Your task to perform on an android device: delete location history Image 0: 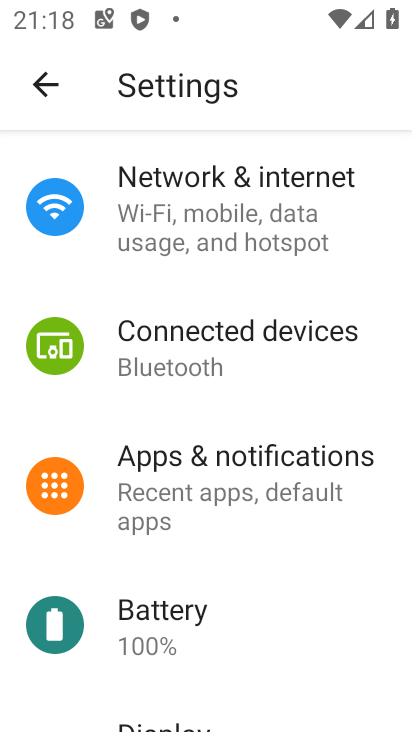
Step 0: press home button
Your task to perform on an android device: delete location history Image 1: 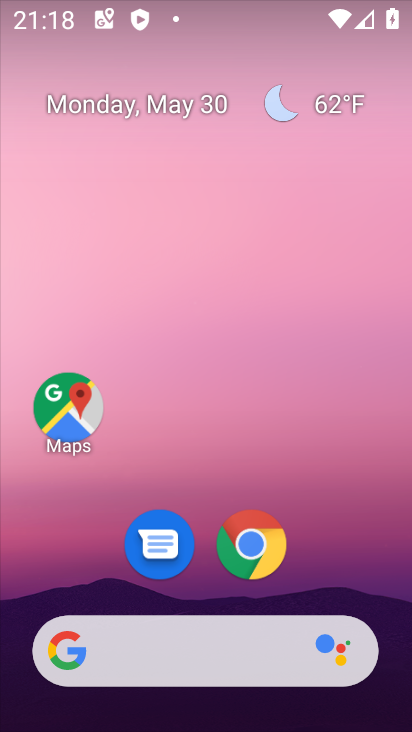
Step 1: drag from (334, 554) to (291, 224)
Your task to perform on an android device: delete location history Image 2: 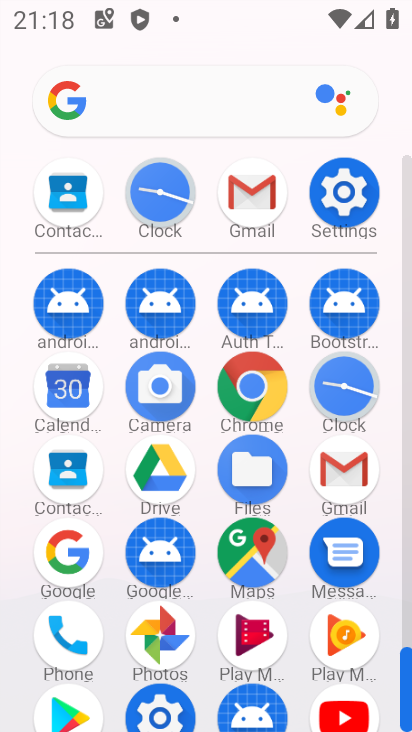
Step 2: drag from (210, 604) to (192, 379)
Your task to perform on an android device: delete location history Image 3: 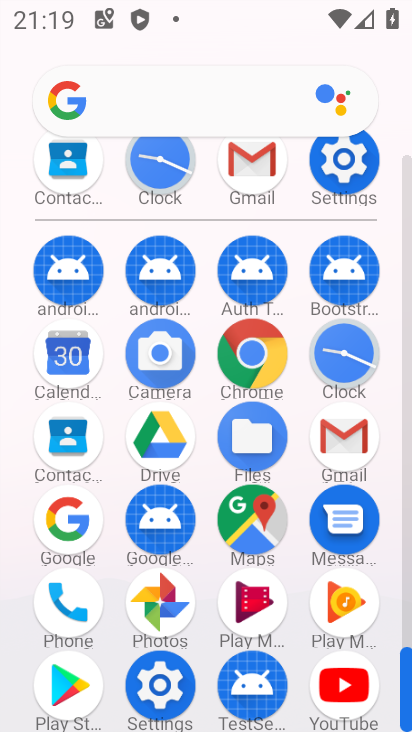
Step 3: click (252, 520)
Your task to perform on an android device: delete location history Image 4: 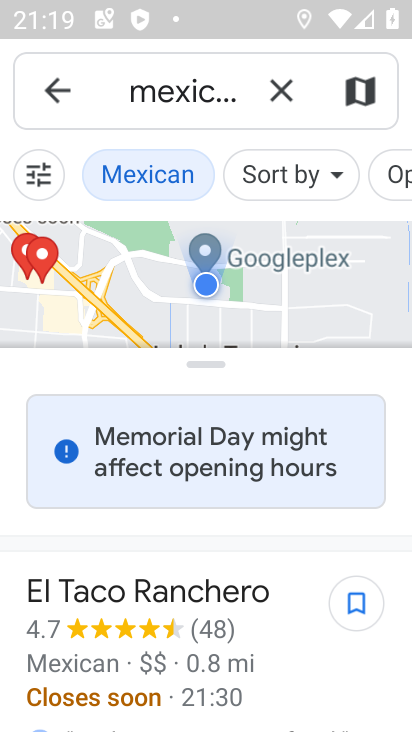
Step 4: click (277, 85)
Your task to perform on an android device: delete location history Image 5: 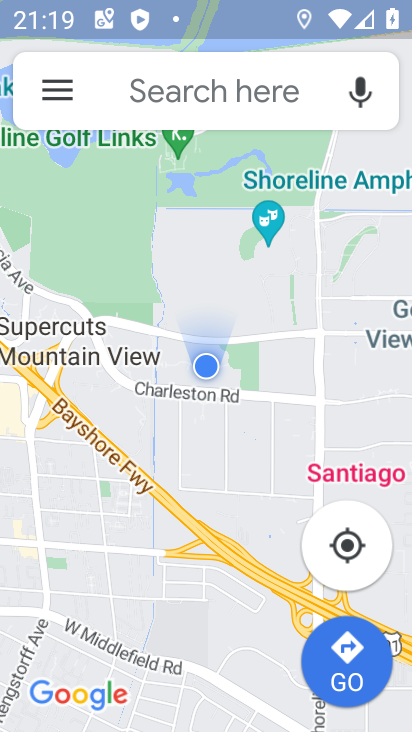
Step 5: click (59, 85)
Your task to perform on an android device: delete location history Image 6: 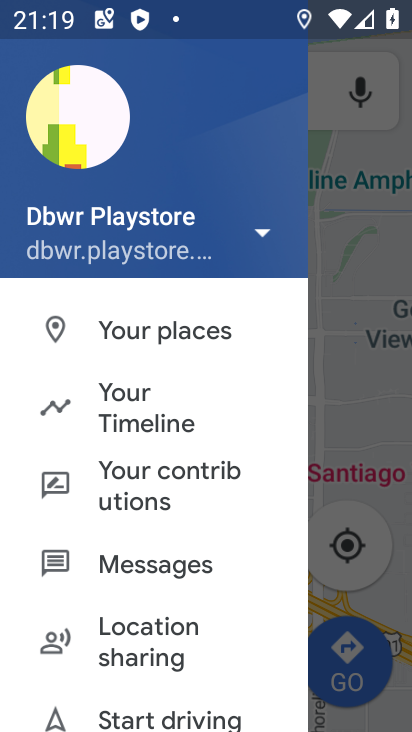
Step 6: drag from (171, 520) to (185, 424)
Your task to perform on an android device: delete location history Image 7: 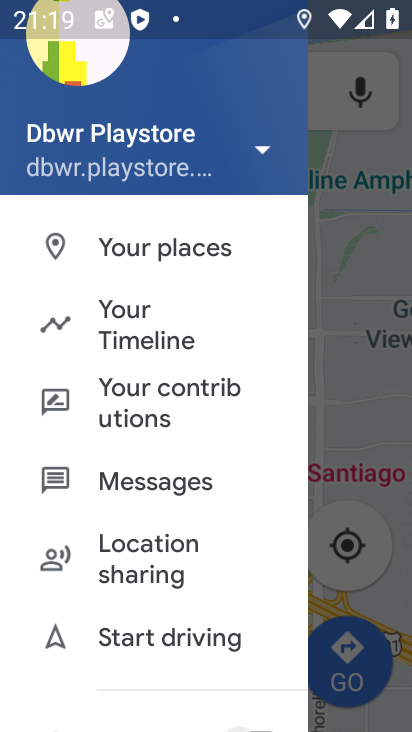
Step 7: drag from (139, 520) to (154, 421)
Your task to perform on an android device: delete location history Image 8: 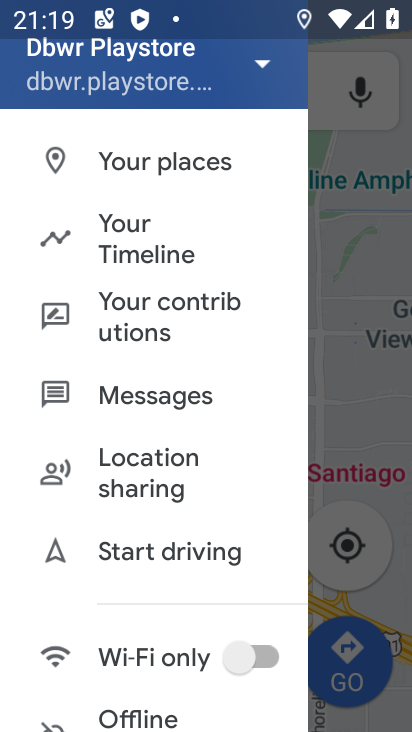
Step 8: drag from (129, 513) to (158, 370)
Your task to perform on an android device: delete location history Image 9: 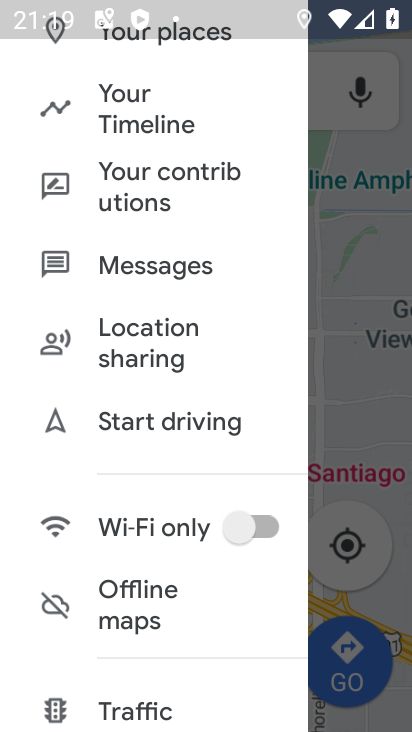
Step 9: drag from (145, 561) to (171, 480)
Your task to perform on an android device: delete location history Image 10: 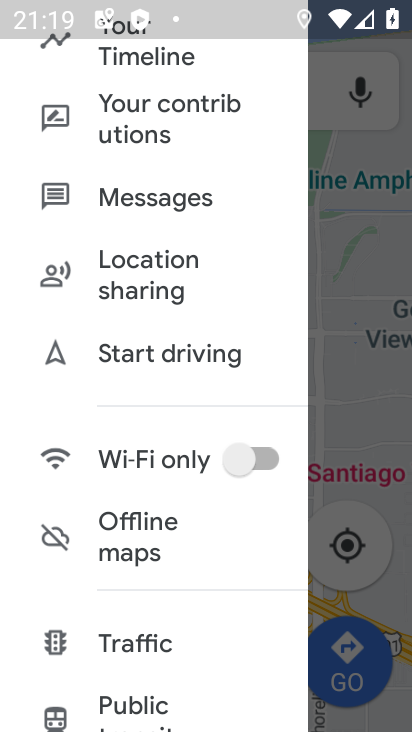
Step 10: drag from (127, 614) to (155, 527)
Your task to perform on an android device: delete location history Image 11: 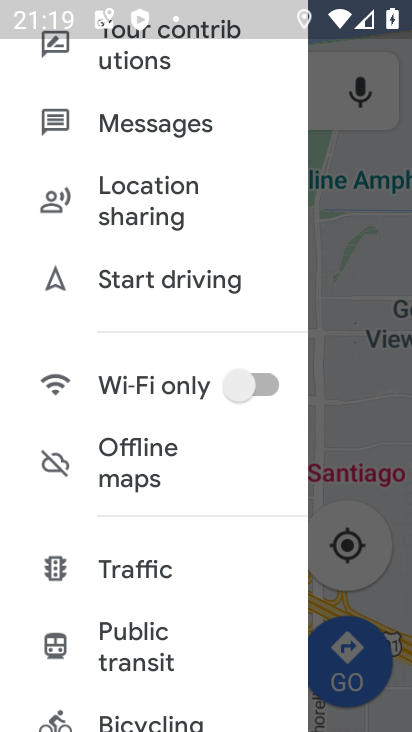
Step 11: drag from (145, 606) to (149, 516)
Your task to perform on an android device: delete location history Image 12: 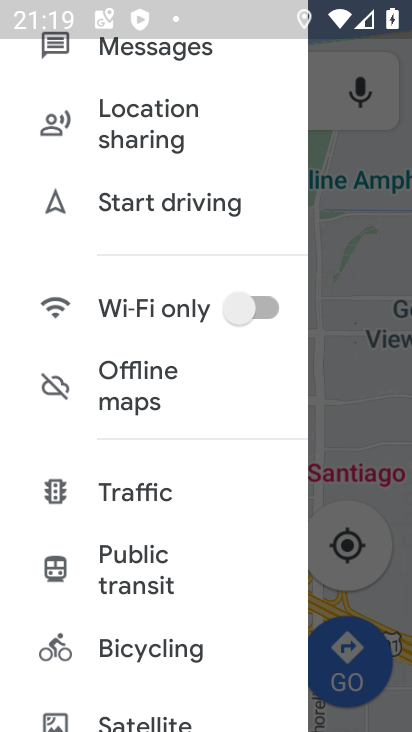
Step 12: drag from (129, 613) to (153, 507)
Your task to perform on an android device: delete location history Image 13: 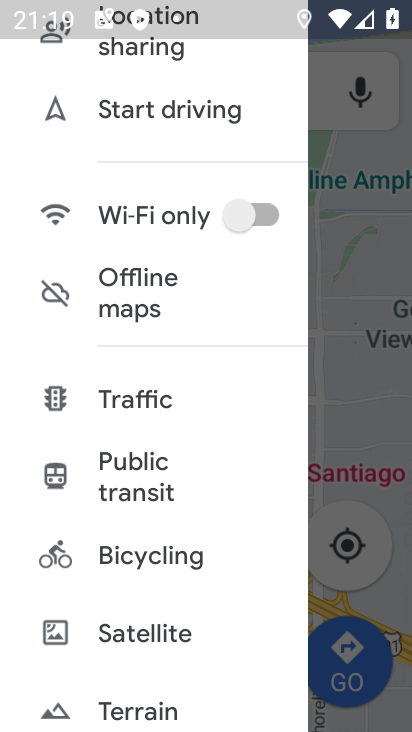
Step 13: drag from (119, 589) to (104, 460)
Your task to perform on an android device: delete location history Image 14: 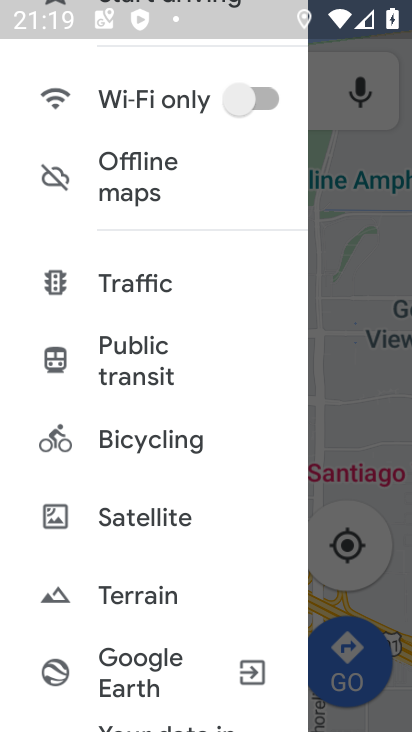
Step 14: drag from (128, 560) to (127, 467)
Your task to perform on an android device: delete location history Image 15: 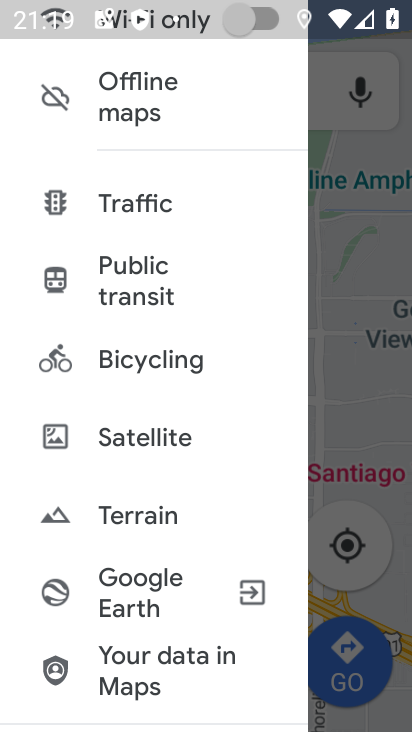
Step 15: drag from (140, 566) to (160, 453)
Your task to perform on an android device: delete location history Image 16: 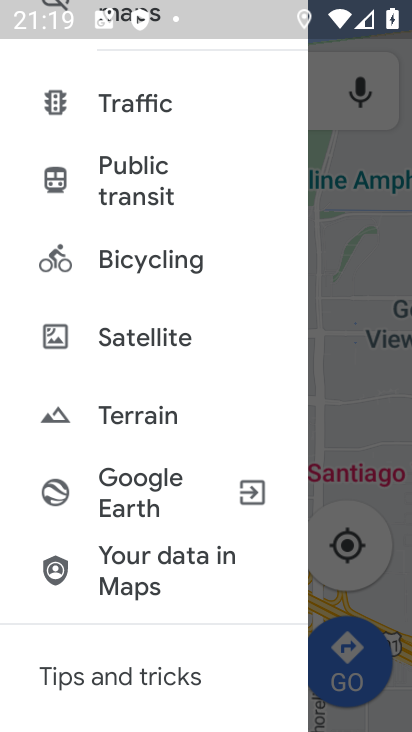
Step 16: drag from (123, 633) to (146, 520)
Your task to perform on an android device: delete location history Image 17: 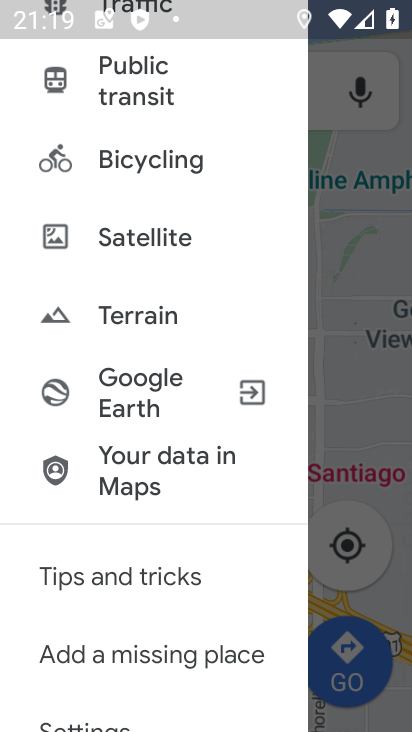
Step 17: drag from (131, 623) to (143, 493)
Your task to perform on an android device: delete location history Image 18: 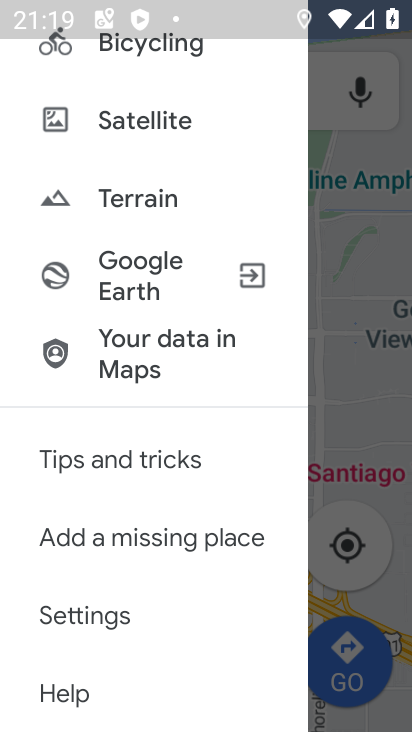
Step 18: click (110, 620)
Your task to perform on an android device: delete location history Image 19: 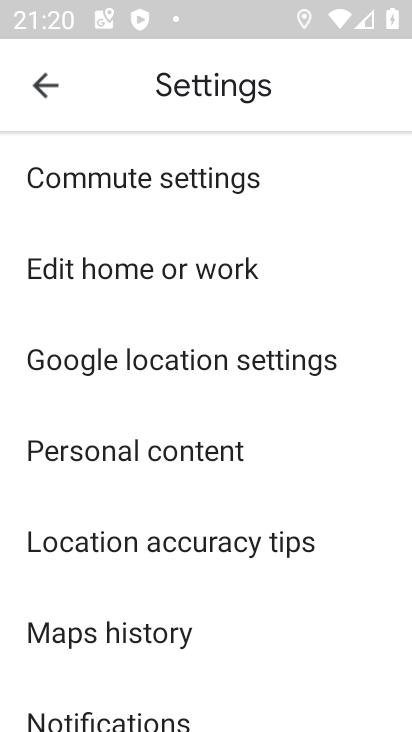
Step 19: click (157, 458)
Your task to perform on an android device: delete location history Image 20: 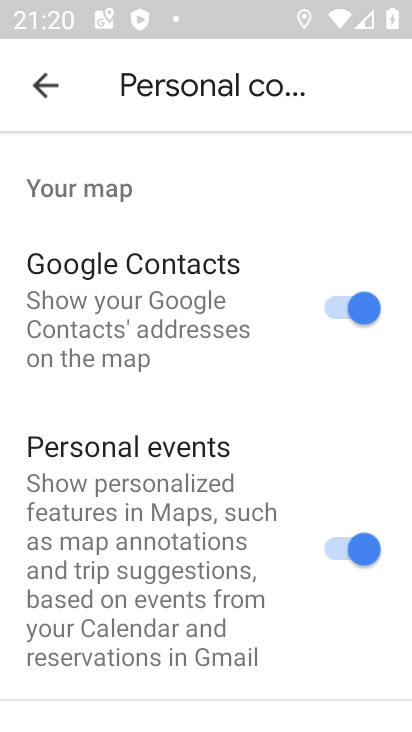
Step 20: drag from (158, 406) to (221, 237)
Your task to perform on an android device: delete location history Image 21: 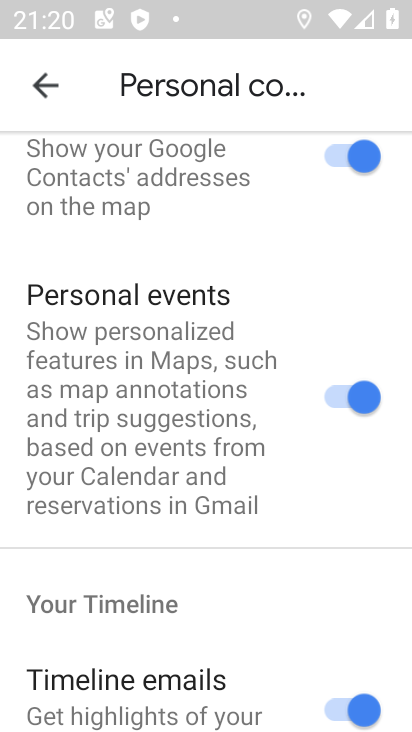
Step 21: drag from (130, 576) to (160, 466)
Your task to perform on an android device: delete location history Image 22: 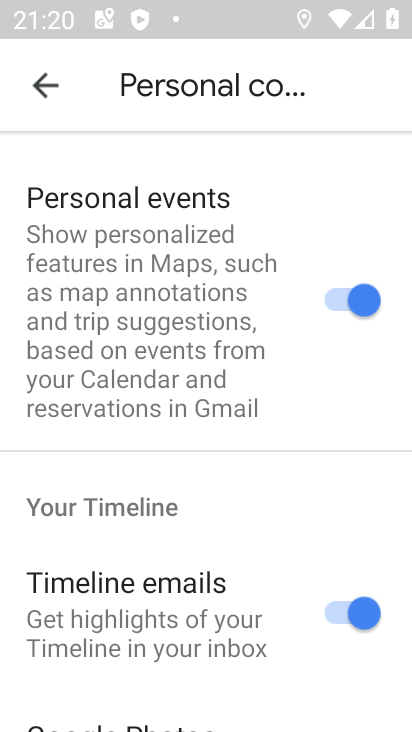
Step 22: drag from (126, 555) to (164, 449)
Your task to perform on an android device: delete location history Image 23: 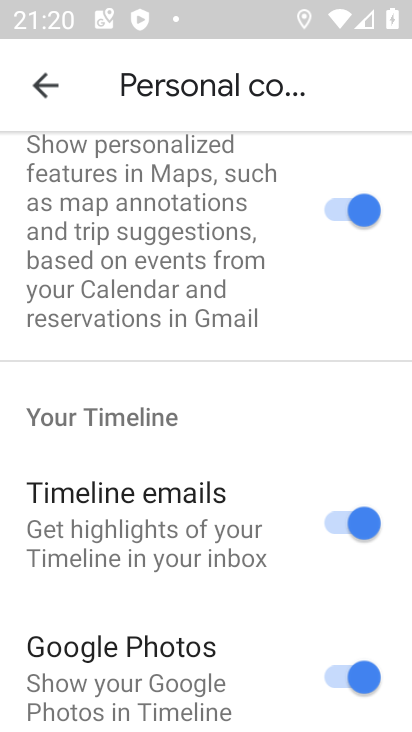
Step 23: drag from (124, 611) to (142, 451)
Your task to perform on an android device: delete location history Image 24: 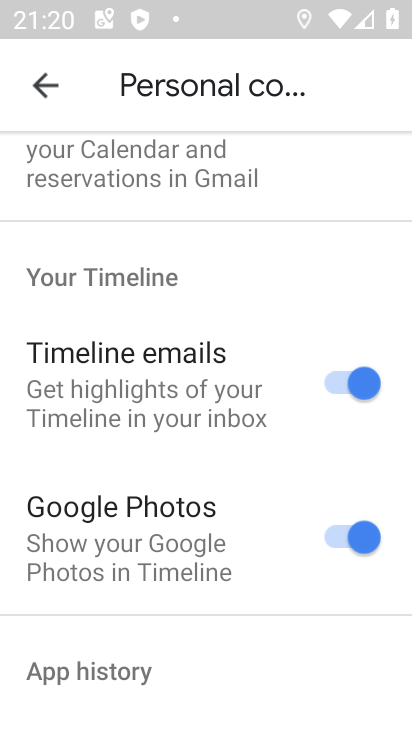
Step 24: drag from (95, 648) to (152, 517)
Your task to perform on an android device: delete location history Image 25: 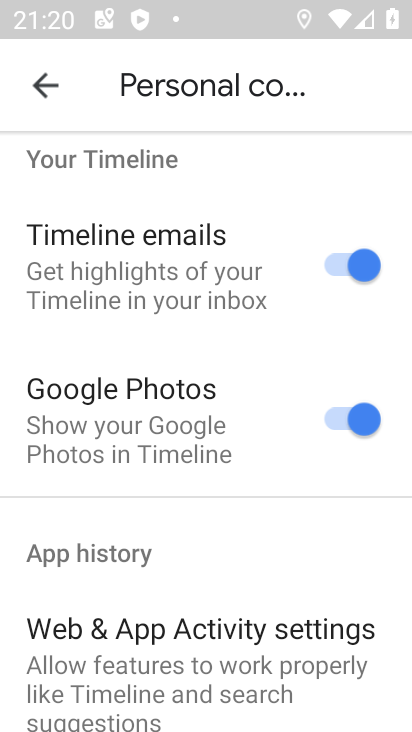
Step 25: drag from (118, 598) to (183, 438)
Your task to perform on an android device: delete location history Image 26: 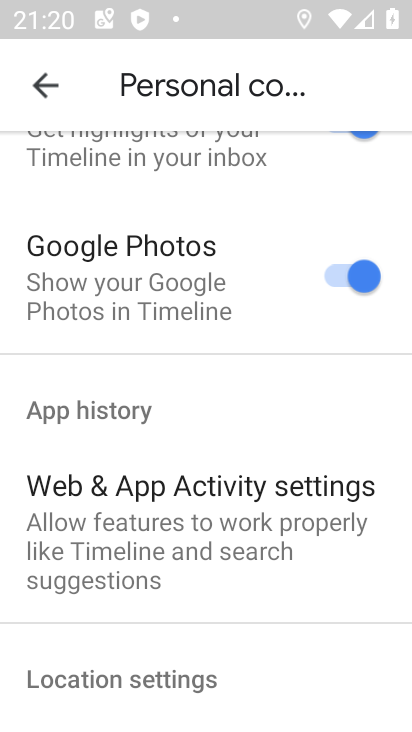
Step 26: drag from (100, 639) to (139, 466)
Your task to perform on an android device: delete location history Image 27: 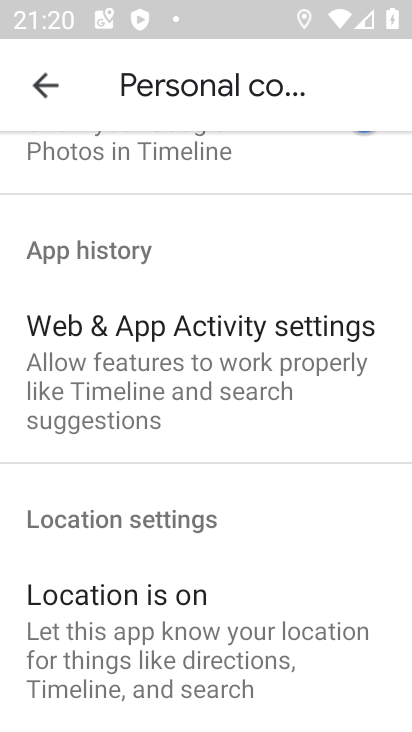
Step 27: drag from (116, 561) to (120, 369)
Your task to perform on an android device: delete location history Image 28: 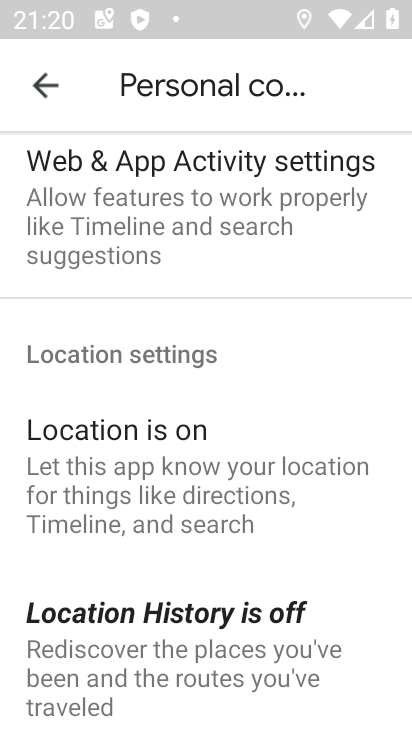
Step 28: drag from (84, 575) to (126, 375)
Your task to perform on an android device: delete location history Image 29: 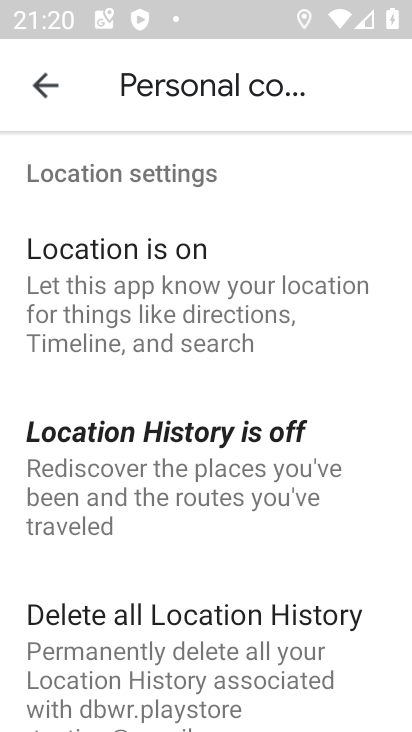
Step 29: drag from (93, 562) to (175, 245)
Your task to perform on an android device: delete location history Image 30: 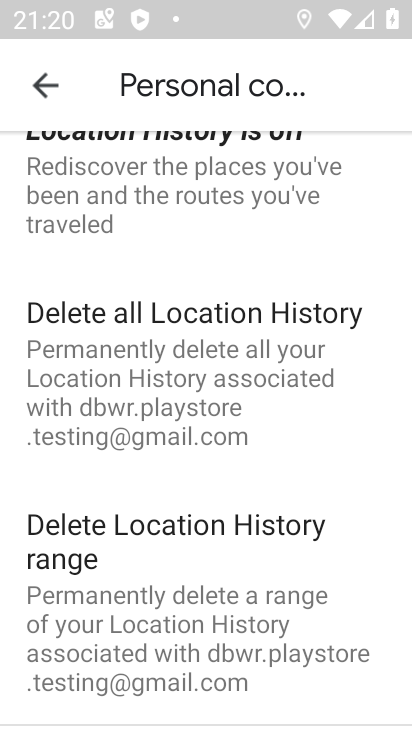
Step 30: click (332, 314)
Your task to perform on an android device: delete location history Image 31: 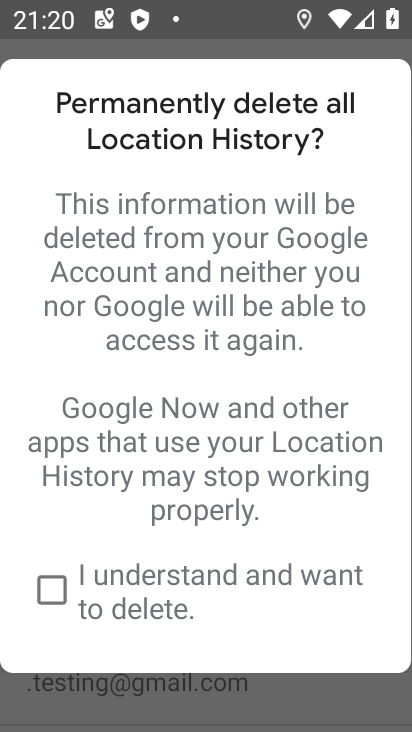
Step 31: click (43, 589)
Your task to perform on an android device: delete location history Image 32: 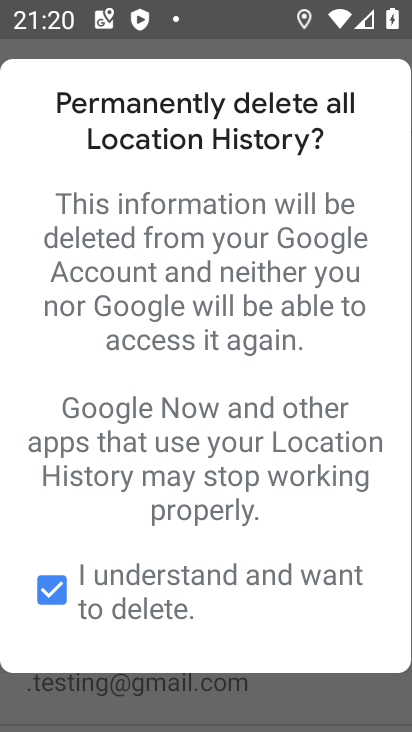
Step 32: click (317, 649)
Your task to perform on an android device: delete location history Image 33: 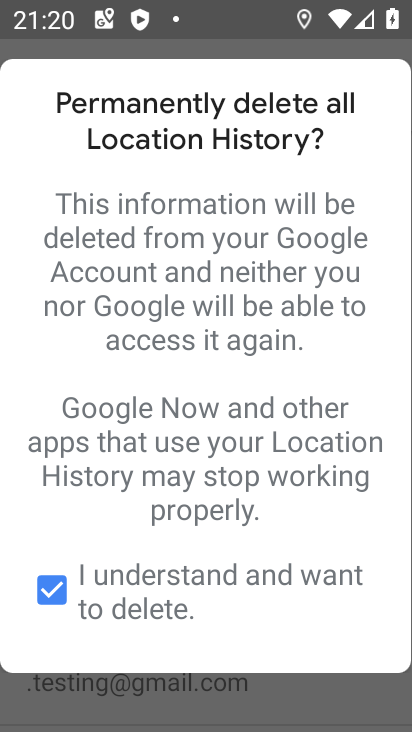
Step 33: click (308, 663)
Your task to perform on an android device: delete location history Image 34: 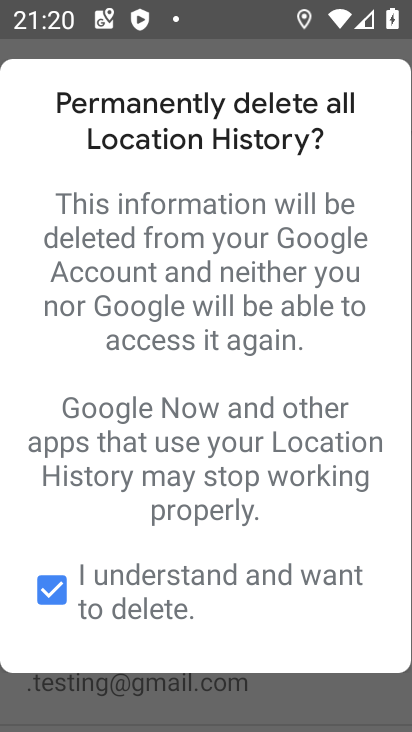
Step 34: click (315, 638)
Your task to perform on an android device: delete location history Image 35: 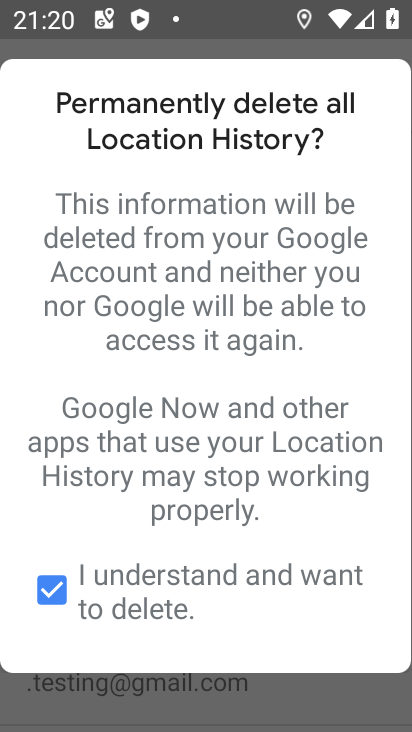
Step 35: click (304, 621)
Your task to perform on an android device: delete location history Image 36: 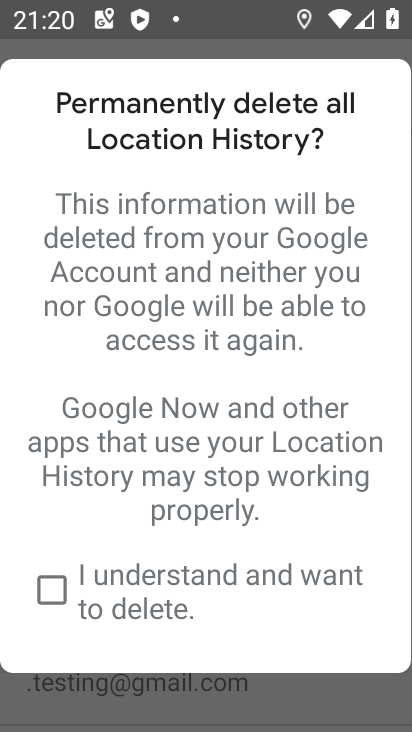
Step 36: click (283, 653)
Your task to perform on an android device: delete location history Image 37: 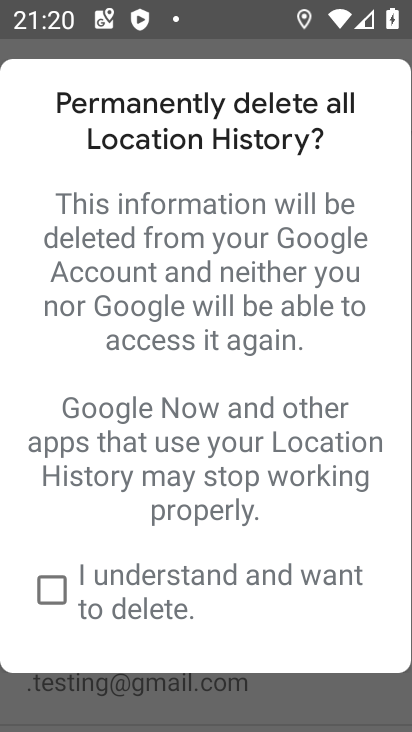
Step 37: click (257, 659)
Your task to perform on an android device: delete location history Image 38: 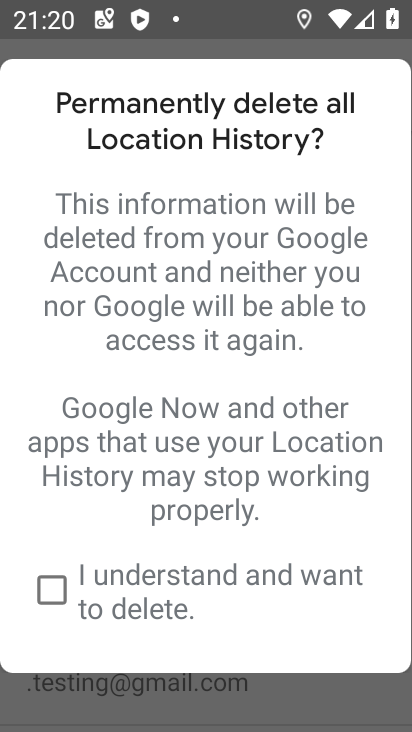
Step 38: click (357, 658)
Your task to perform on an android device: delete location history Image 39: 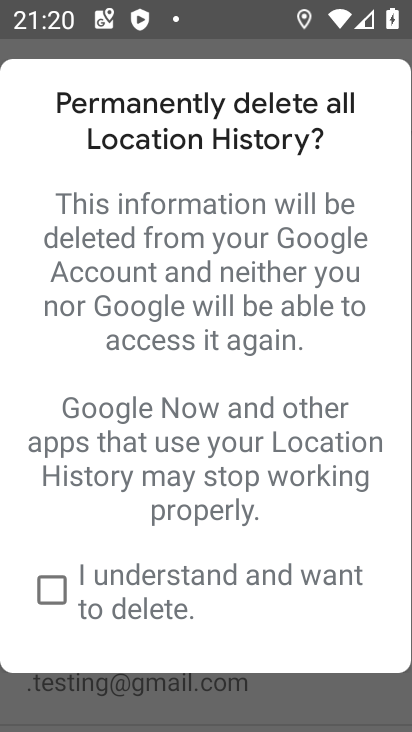
Step 39: click (343, 643)
Your task to perform on an android device: delete location history Image 40: 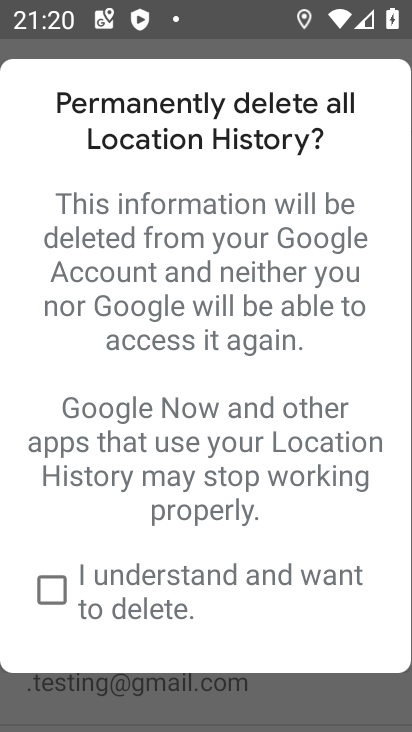
Step 40: click (325, 661)
Your task to perform on an android device: delete location history Image 41: 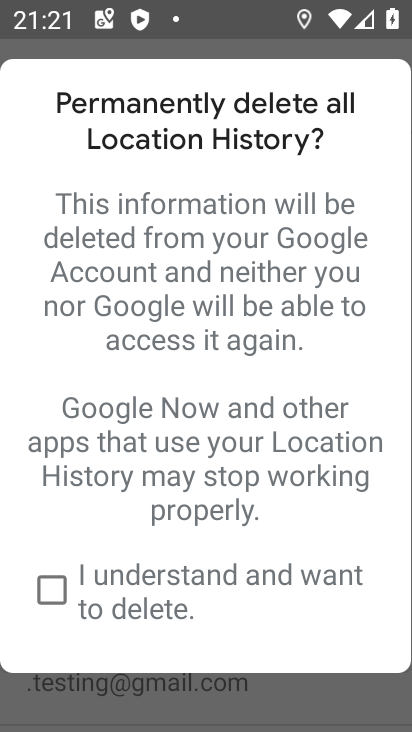
Step 41: click (47, 588)
Your task to perform on an android device: delete location history Image 42: 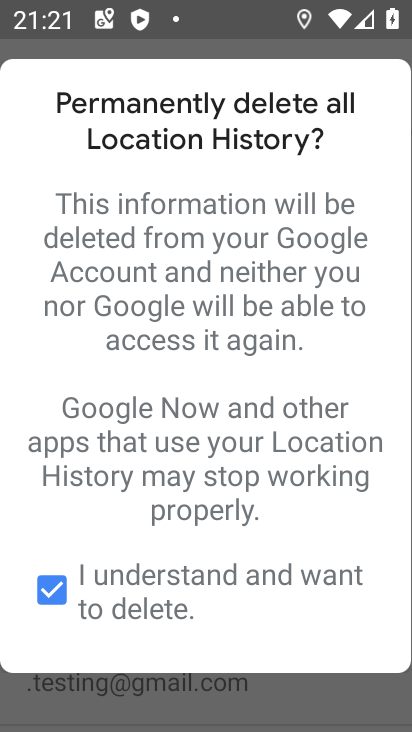
Step 42: click (322, 646)
Your task to perform on an android device: delete location history Image 43: 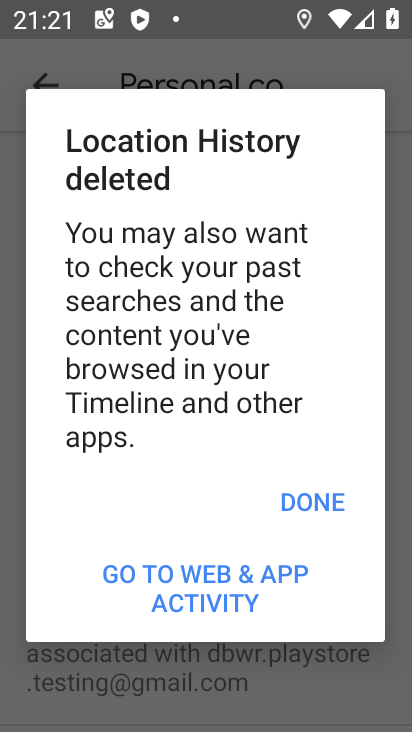
Step 43: click (317, 510)
Your task to perform on an android device: delete location history Image 44: 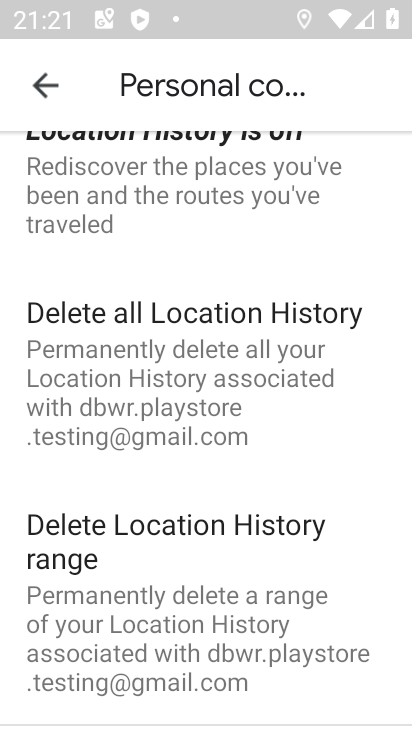
Step 44: task complete